Your task to perform on an android device: Show me recent news Image 0: 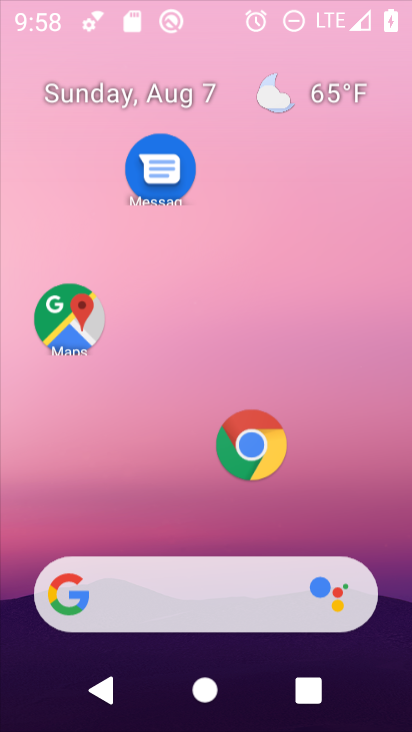
Step 0: press home button
Your task to perform on an android device: Show me recent news Image 1: 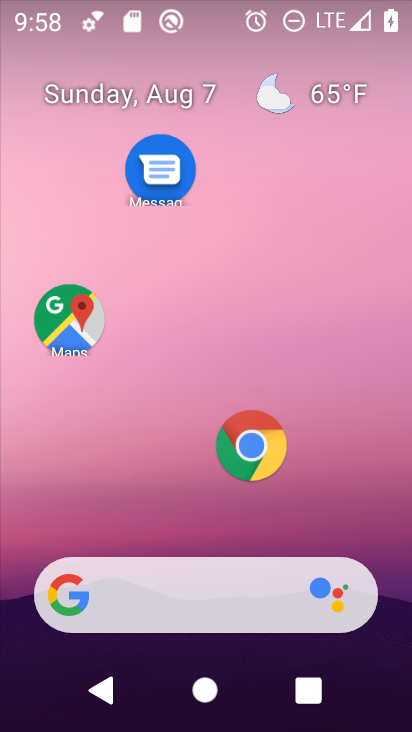
Step 1: task complete